Your task to perform on an android device: Play the last video I watched on Youtube Image 0: 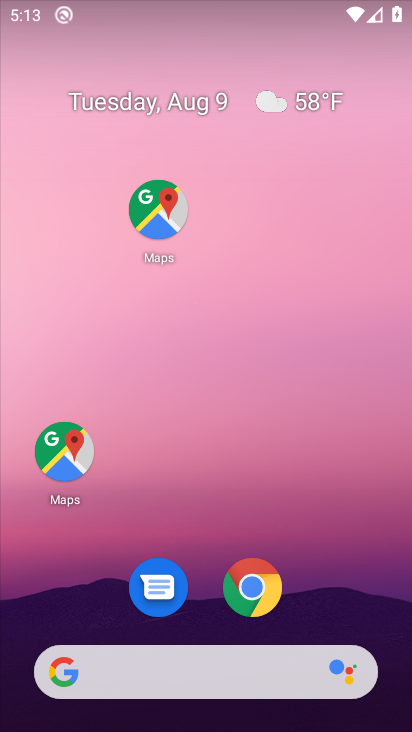
Step 0: drag from (163, 550) to (163, 246)
Your task to perform on an android device: Play the last video I watched on Youtube Image 1: 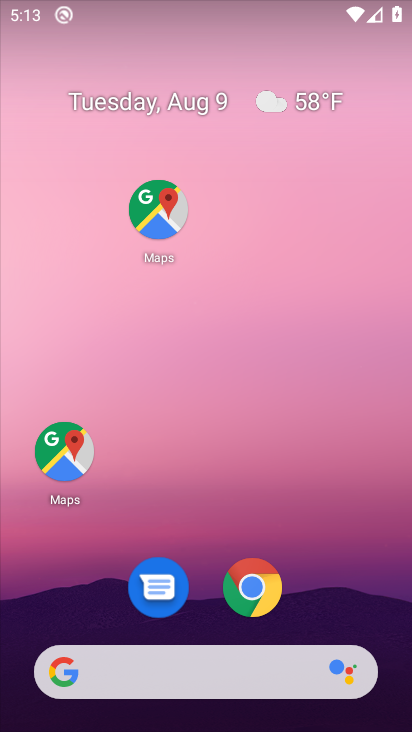
Step 1: drag from (186, 613) to (197, 152)
Your task to perform on an android device: Play the last video I watched on Youtube Image 2: 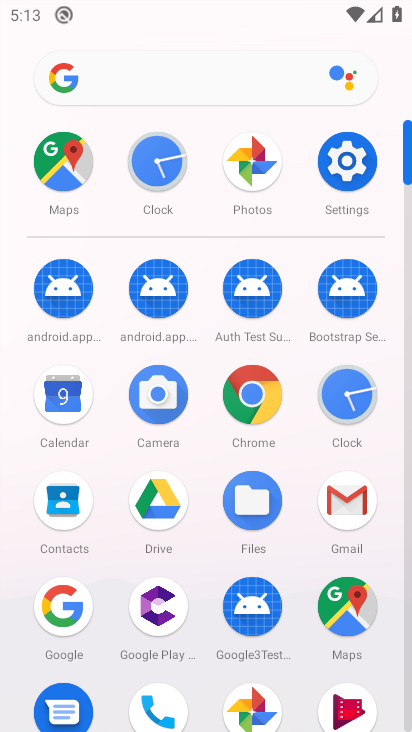
Step 2: drag from (342, 559) to (321, 189)
Your task to perform on an android device: Play the last video I watched on Youtube Image 3: 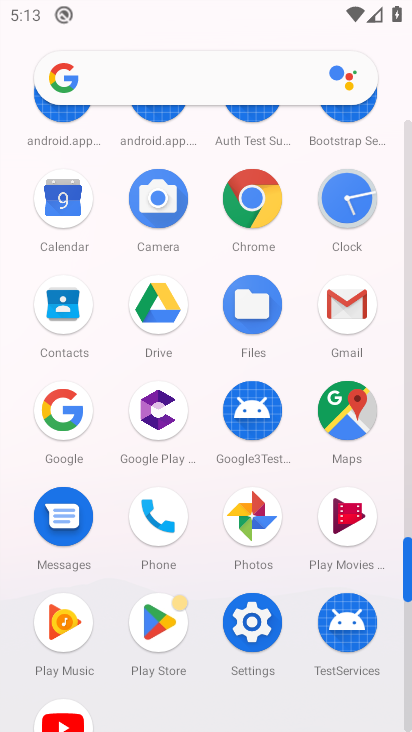
Step 3: drag from (299, 638) to (352, 167)
Your task to perform on an android device: Play the last video I watched on Youtube Image 4: 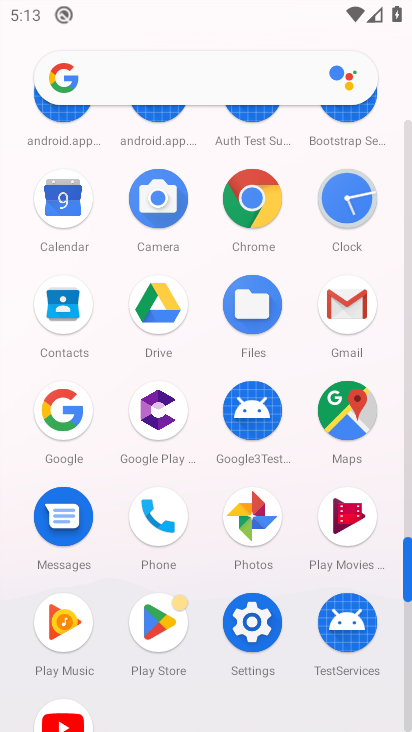
Step 4: drag from (300, 541) to (316, 142)
Your task to perform on an android device: Play the last video I watched on Youtube Image 5: 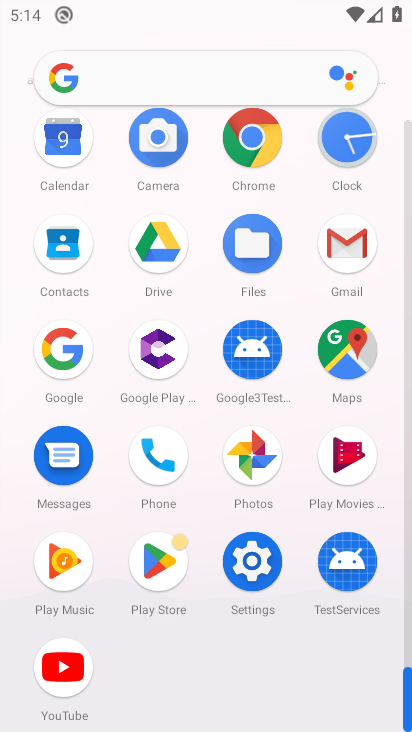
Step 5: click (64, 651)
Your task to perform on an android device: Play the last video I watched on Youtube Image 6: 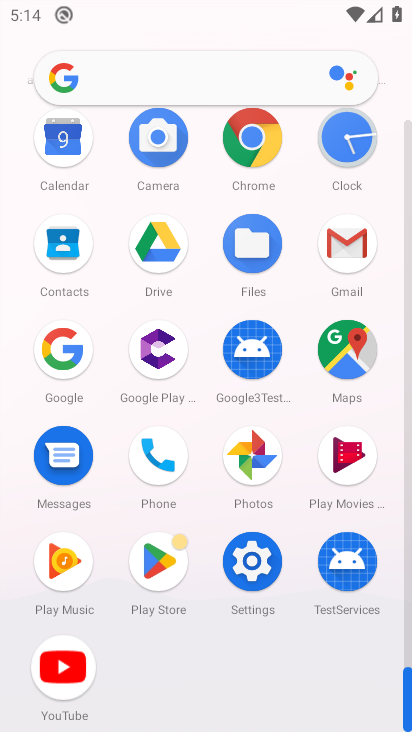
Step 6: click (68, 657)
Your task to perform on an android device: Play the last video I watched on Youtube Image 7: 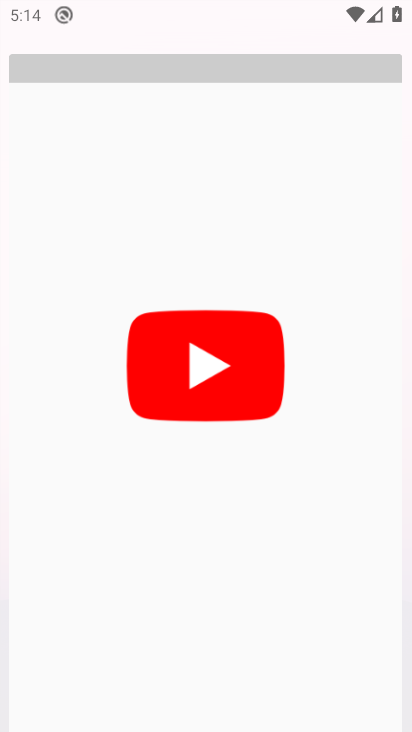
Step 7: click (71, 666)
Your task to perform on an android device: Play the last video I watched on Youtube Image 8: 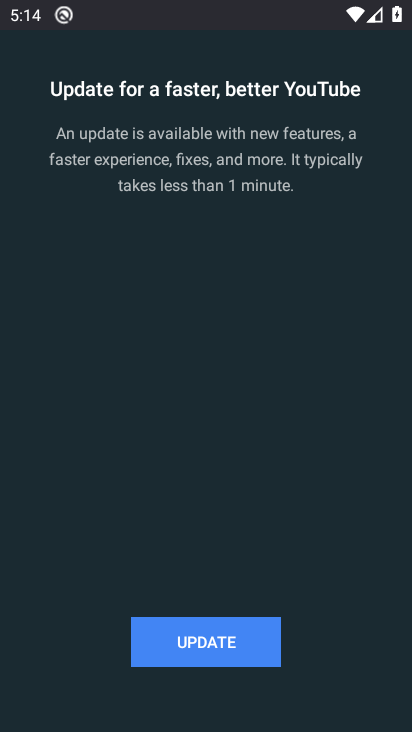
Step 8: click (225, 640)
Your task to perform on an android device: Play the last video I watched on Youtube Image 9: 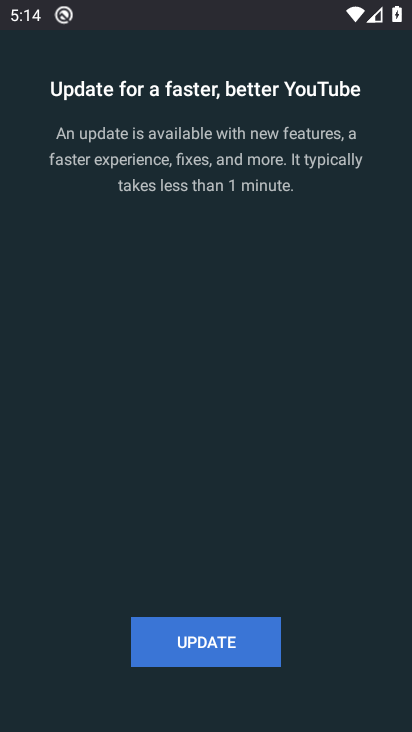
Step 9: click (225, 640)
Your task to perform on an android device: Play the last video I watched on Youtube Image 10: 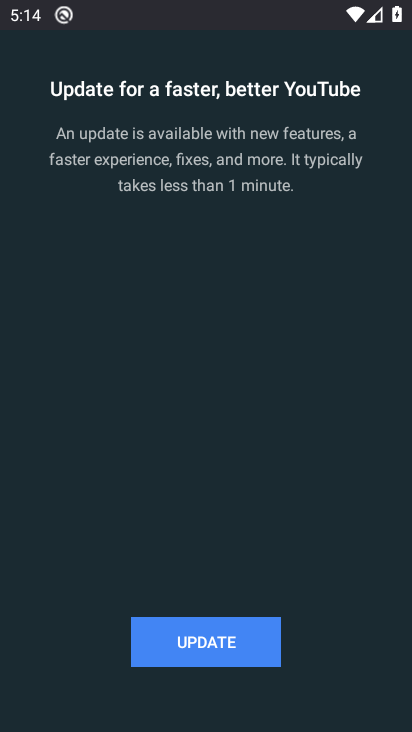
Step 10: click (225, 640)
Your task to perform on an android device: Play the last video I watched on Youtube Image 11: 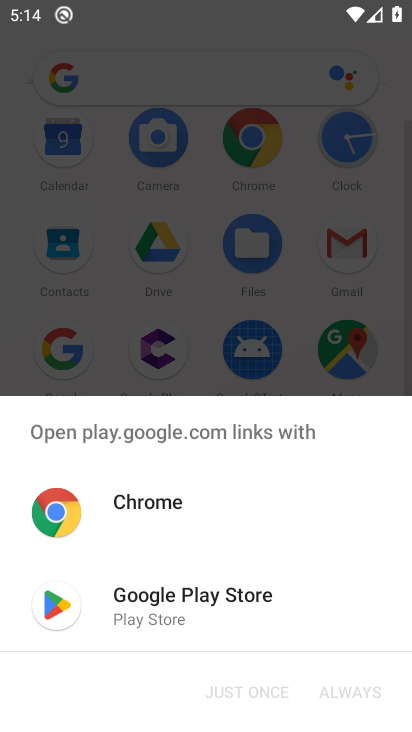
Step 11: click (149, 591)
Your task to perform on an android device: Play the last video I watched on Youtube Image 12: 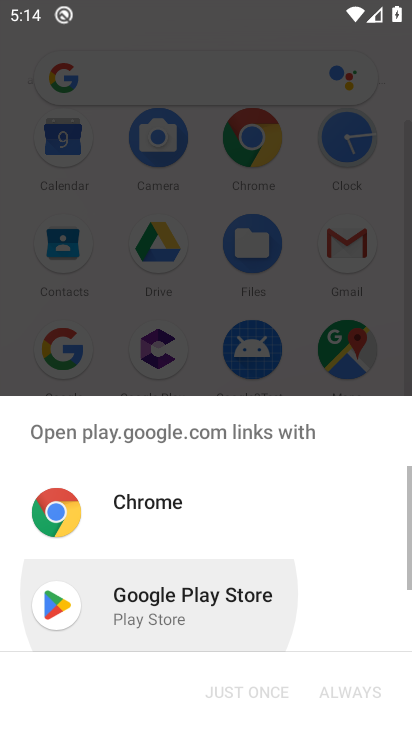
Step 12: click (149, 591)
Your task to perform on an android device: Play the last video I watched on Youtube Image 13: 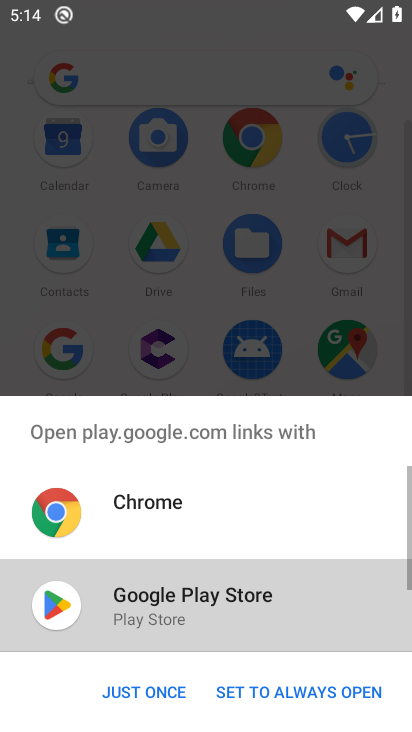
Step 13: click (148, 591)
Your task to perform on an android device: Play the last video I watched on Youtube Image 14: 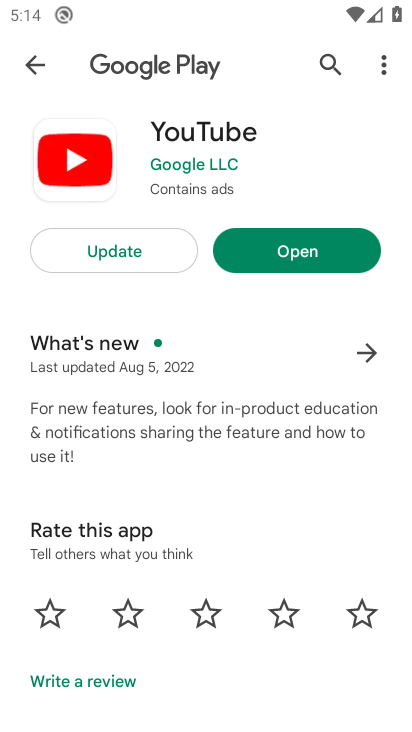
Step 14: click (283, 255)
Your task to perform on an android device: Play the last video I watched on Youtube Image 15: 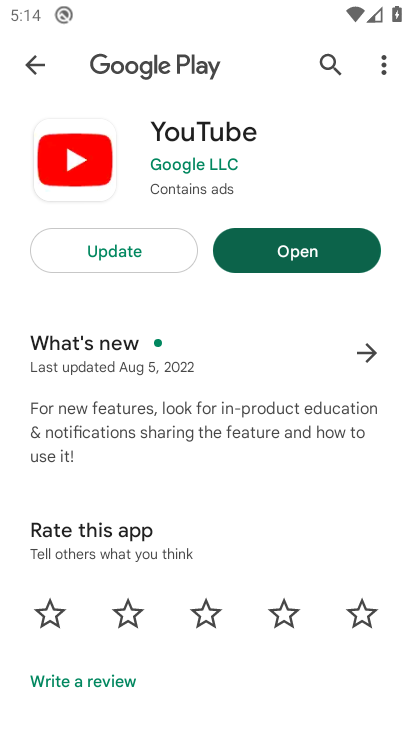
Step 15: click (283, 255)
Your task to perform on an android device: Play the last video I watched on Youtube Image 16: 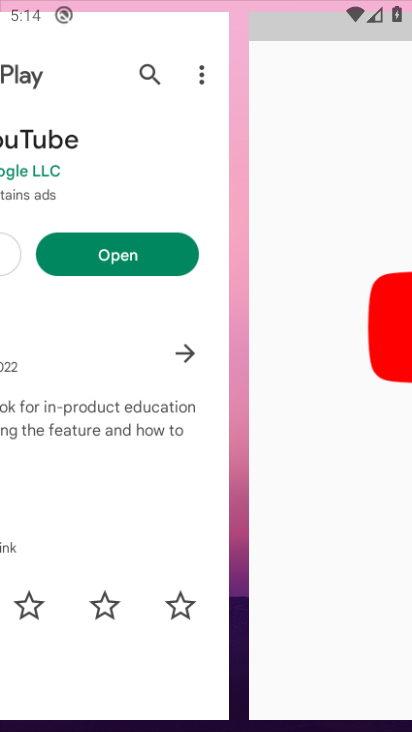
Step 16: click (294, 256)
Your task to perform on an android device: Play the last video I watched on Youtube Image 17: 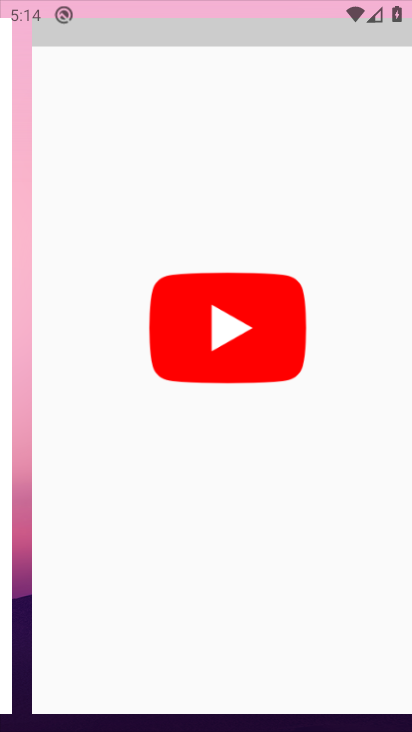
Step 17: click (296, 259)
Your task to perform on an android device: Play the last video I watched on Youtube Image 18: 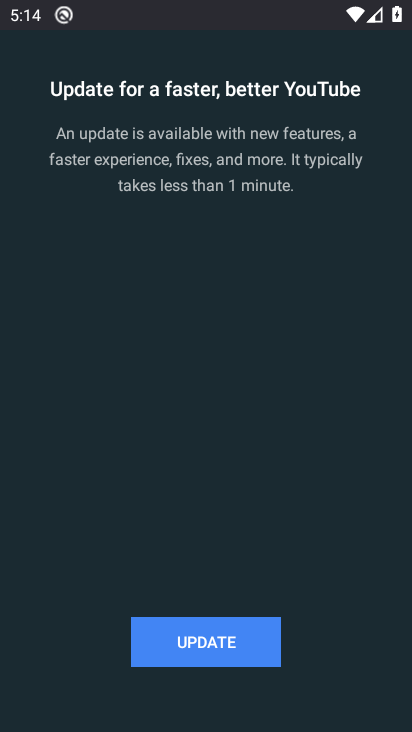
Step 18: task complete